Your task to perform on an android device: set default search engine in the chrome app Image 0: 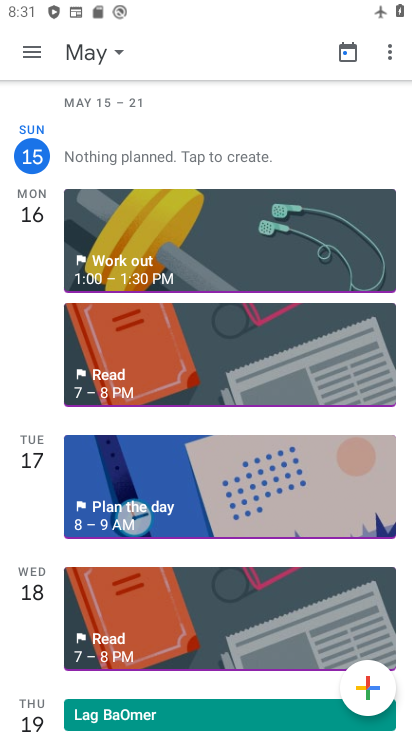
Step 0: press home button
Your task to perform on an android device: set default search engine in the chrome app Image 1: 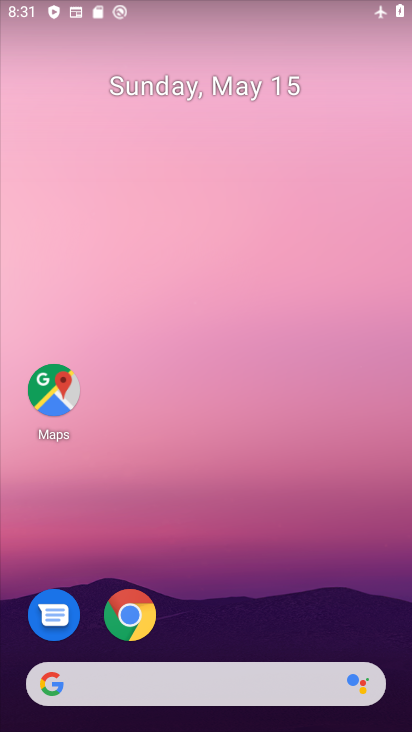
Step 1: click (122, 628)
Your task to perform on an android device: set default search engine in the chrome app Image 2: 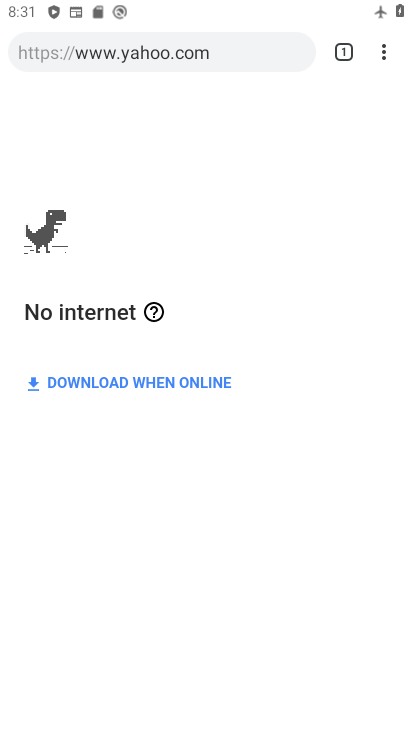
Step 2: click (384, 44)
Your task to perform on an android device: set default search engine in the chrome app Image 3: 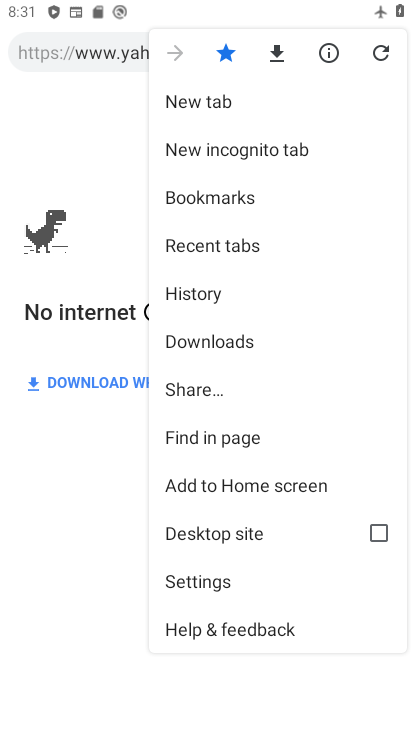
Step 3: click (168, 584)
Your task to perform on an android device: set default search engine in the chrome app Image 4: 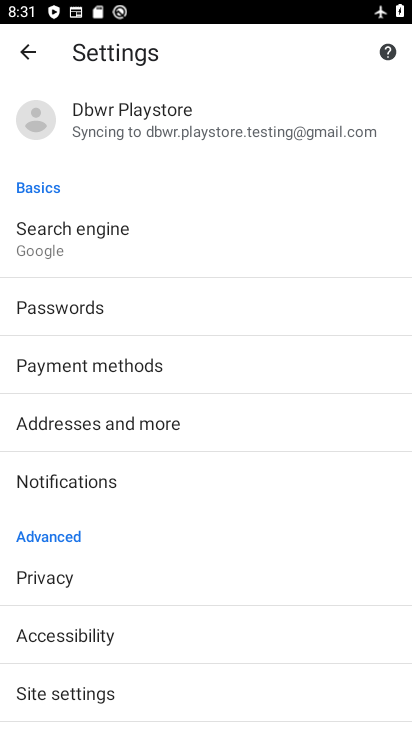
Step 4: click (89, 234)
Your task to perform on an android device: set default search engine in the chrome app Image 5: 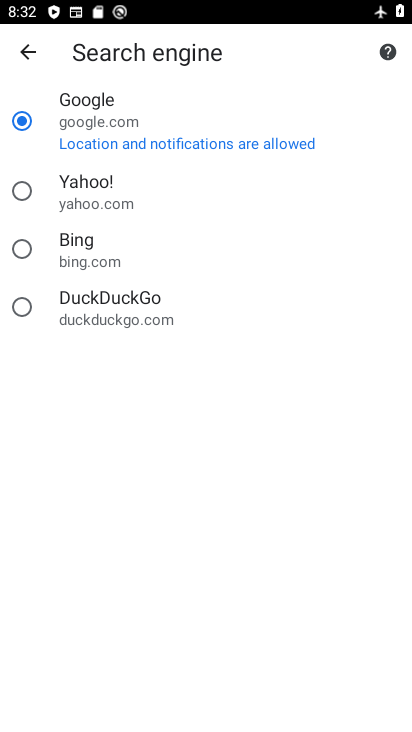
Step 5: task complete